Your task to perform on an android device: turn off data saver in the chrome app Image 0: 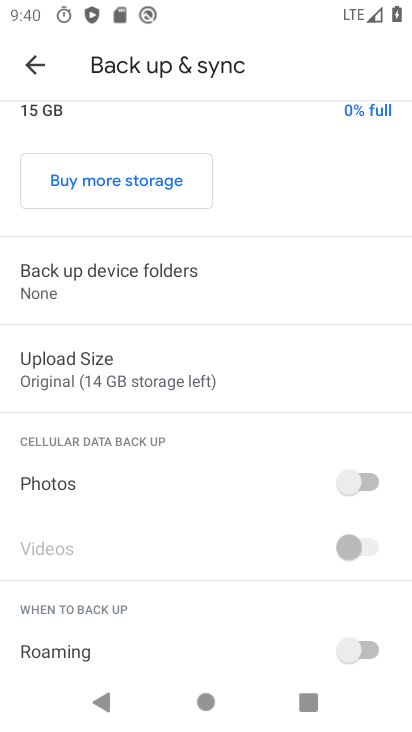
Step 0: press home button
Your task to perform on an android device: turn off data saver in the chrome app Image 1: 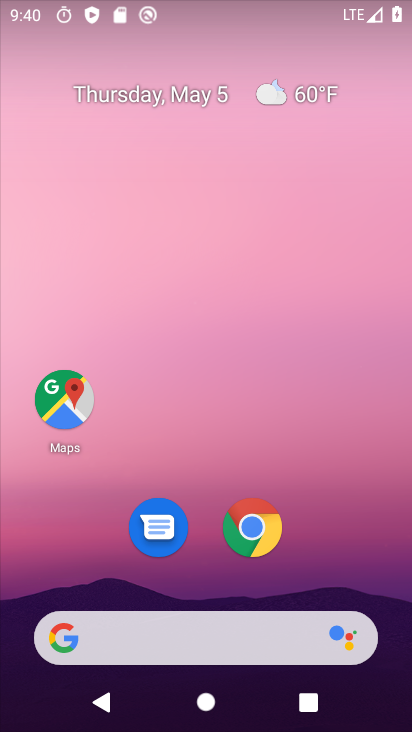
Step 1: click (233, 527)
Your task to perform on an android device: turn off data saver in the chrome app Image 2: 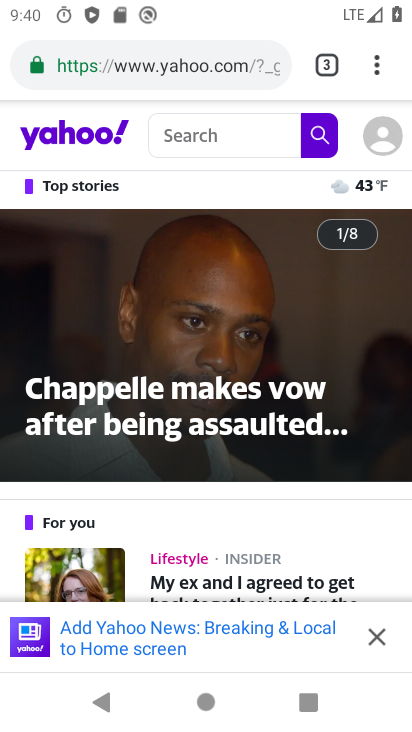
Step 2: click (377, 54)
Your task to perform on an android device: turn off data saver in the chrome app Image 3: 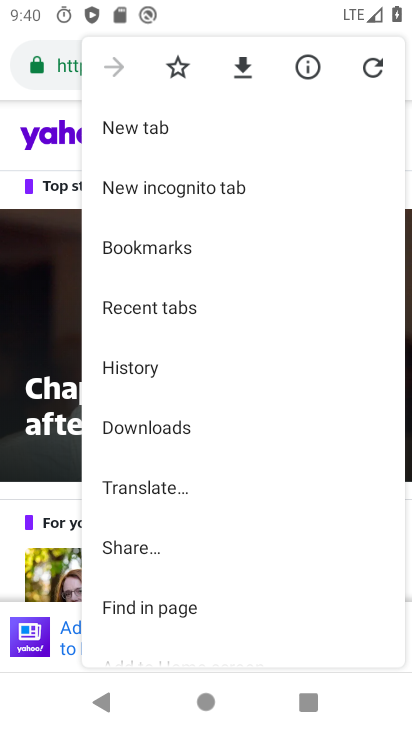
Step 3: drag from (238, 452) to (287, 116)
Your task to perform on an android device: turn off data saver in the chrome app Image 4: 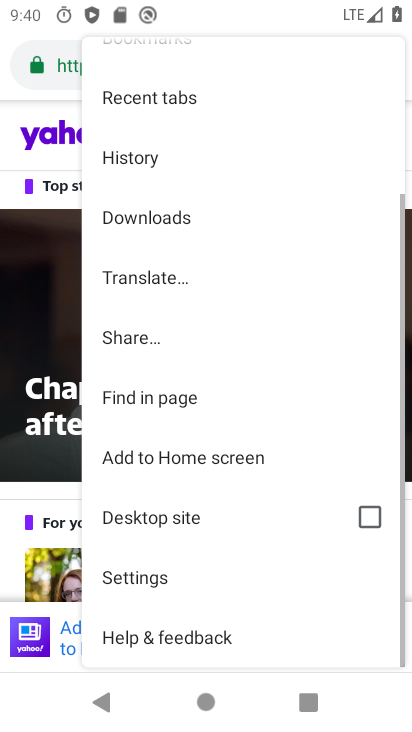
Step 4: click (185, 579)
Your task to perform on an android device: turn off data saver in the chrome app Image 5: 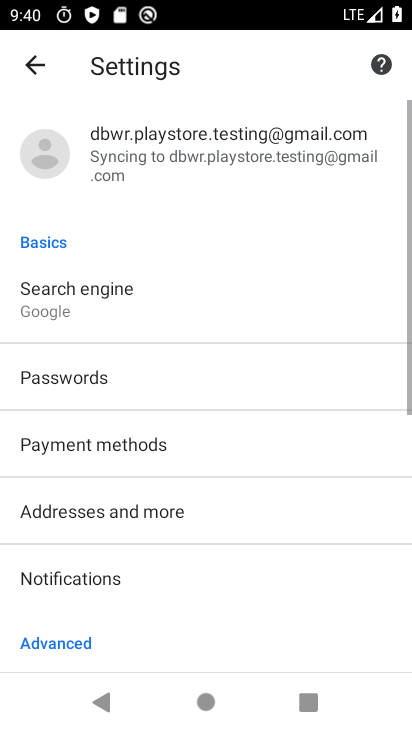
Step 5: drag from (183, 579) to (254, 136)
Your task to perform on an android device: turn off data saver in the chrome app Image 6: 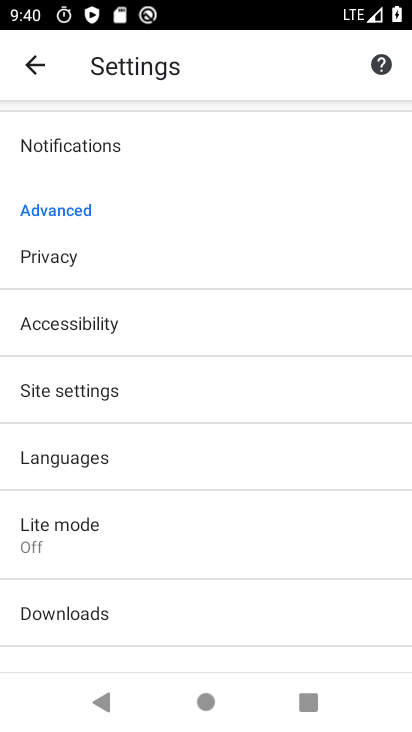
Step 6: click (192, 527)
Your task to perform on an android device: turn off data saver in the chrome app Image 7: 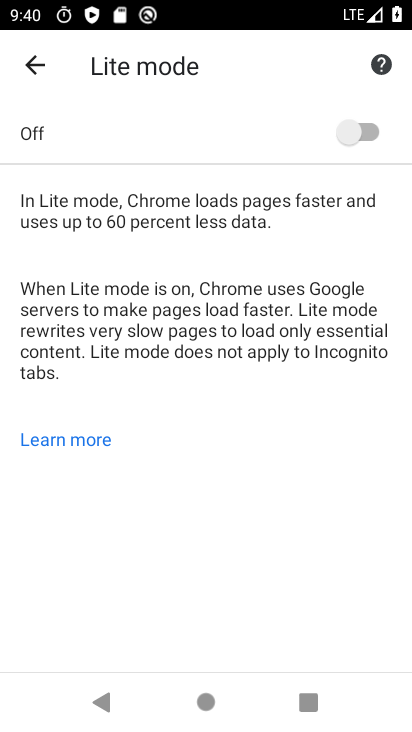
Step 7: task complete